Your task to perform on an android device: set default search engine in the chrome app Image 0: 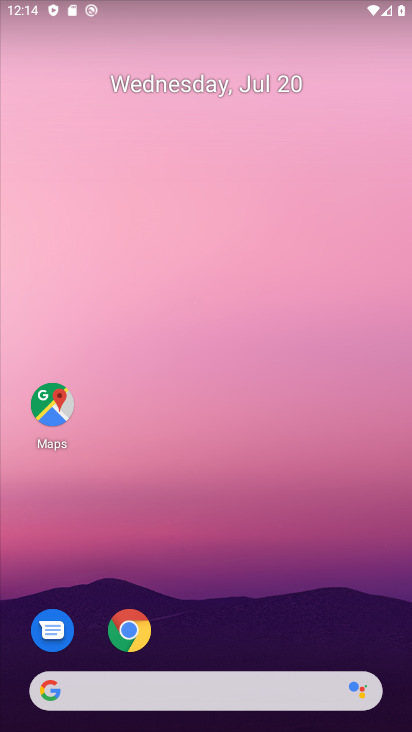
Step 0: click (128, 632)
Your task to perform on an android device: set default search engine in the chrome app Image 1: 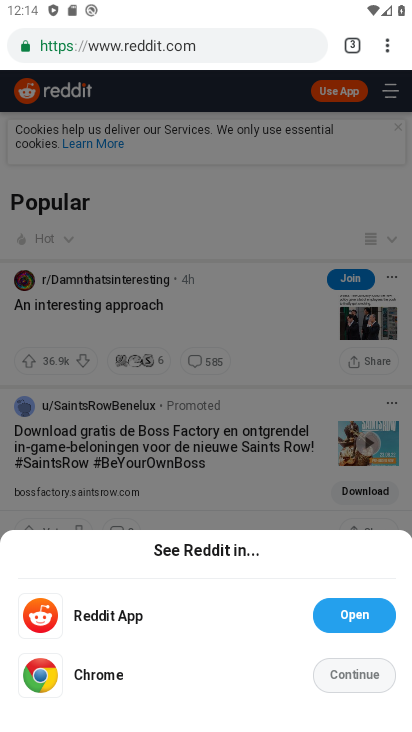
Step 1: click (387, 40)
Your task to perform on an android device: set default search engine in the chrome app Image 2: 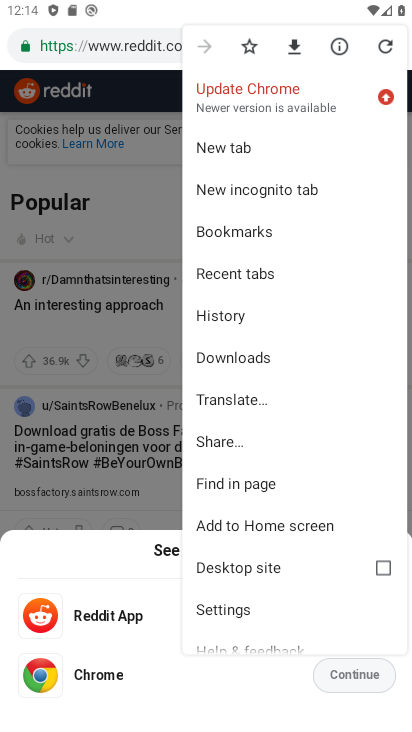
Step 2: click (229, 613)
Your task to perform on an android device: set default search engine in the chrome app Image 3: 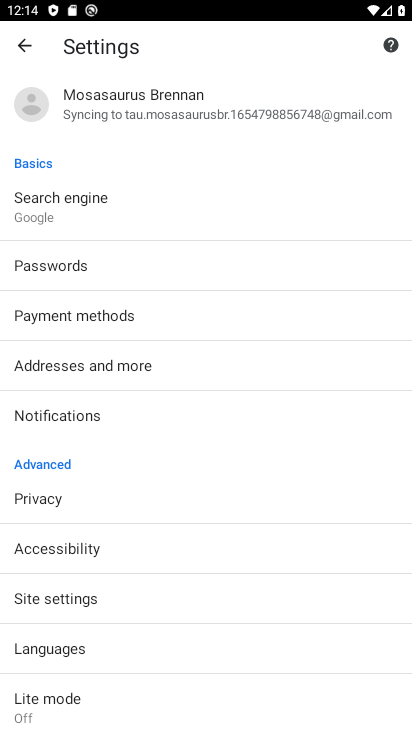
Step 3: click (36, 194)
Your task to perform on an android device: set default search engine in the chrome app Image 4: 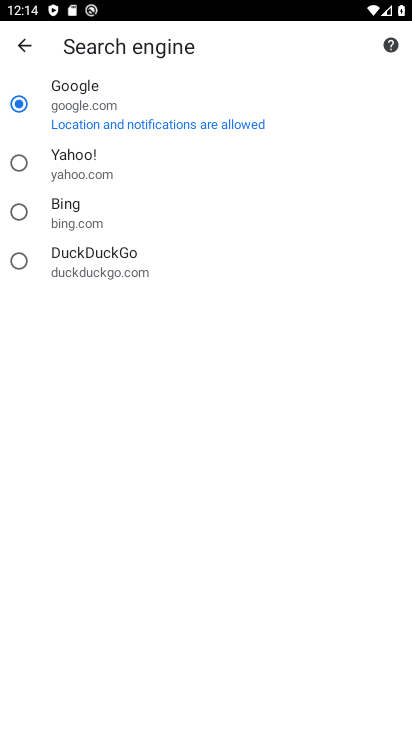
Step 4: click (10, 160)
Your task to perform on an android device: set default search engine in the chrome app Image 5: 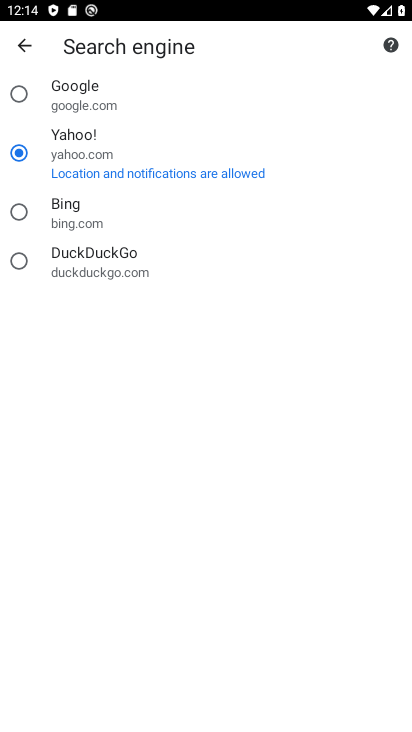
Step 5: task complete